Your task to perform on an android device: move an email to a new category in the gmail app Image 0: 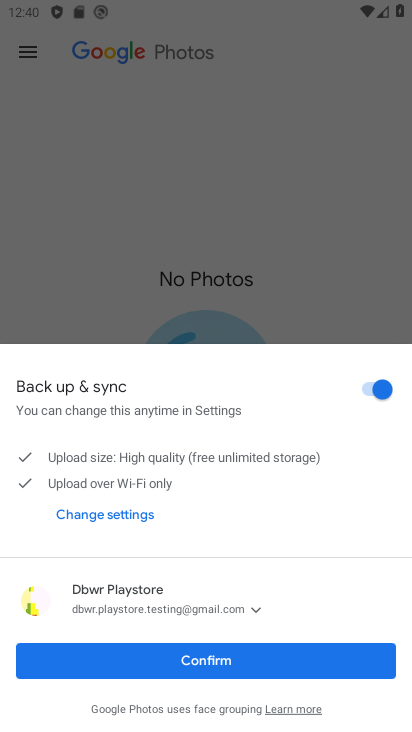
Step 0: press back button
Your task to perform on an android device: move an email to a new category in the gmail app Image 1: 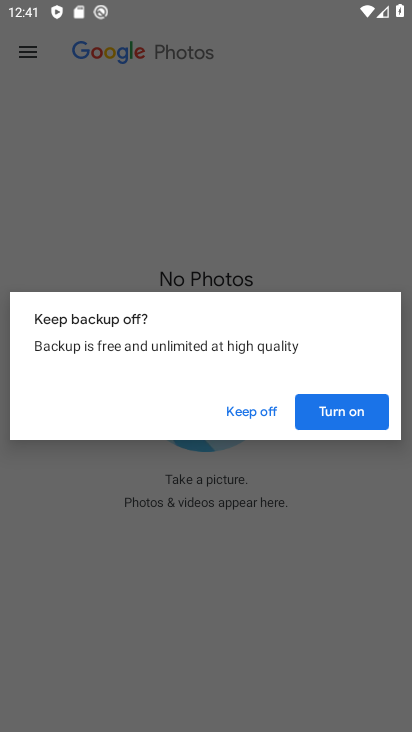
Step 1: press home button
Your task to perform on an android device: move an email to a new category in the gmail app Image 2: 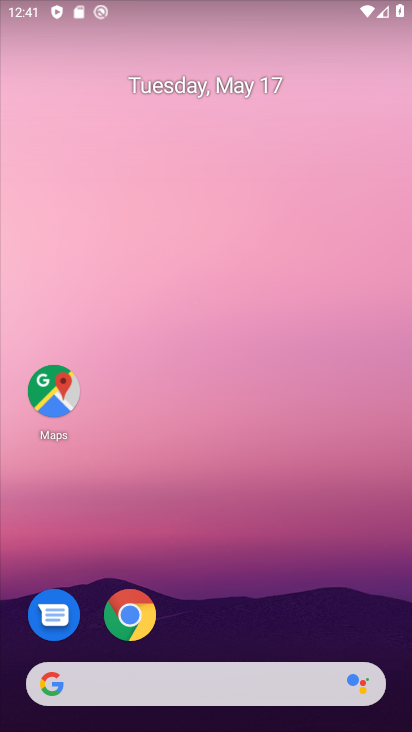
Step 2: drag from (286, 584) to (266, 232)
Your task to perform on an android device: move an email to a new category in the gmail app Image 3: 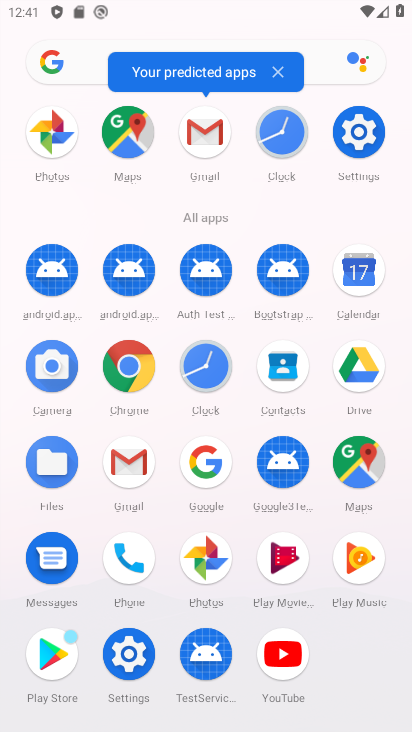
Step 3: click (207, 131)
Your task to perform on an android device: move an email to a new category in the gmail app Image 4: 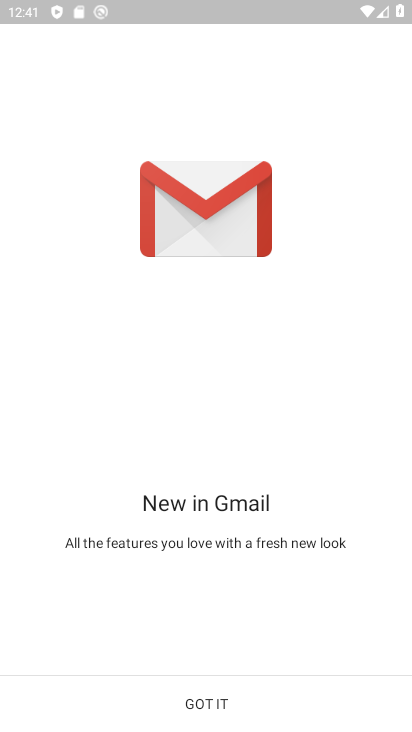
Step 4: click (196, 701)
Your task to perform on an android device: move an email to a new category in the gmail app Image 5: 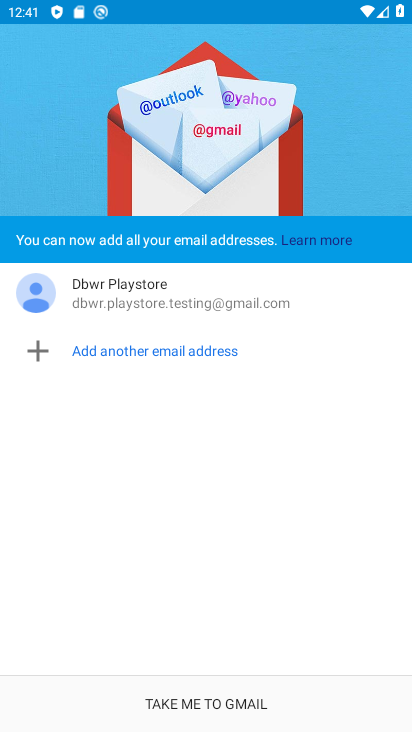
Step 5: click (196, 701)
Your task to perform on an android device: move an email to a new category in the gmail app Image 6: 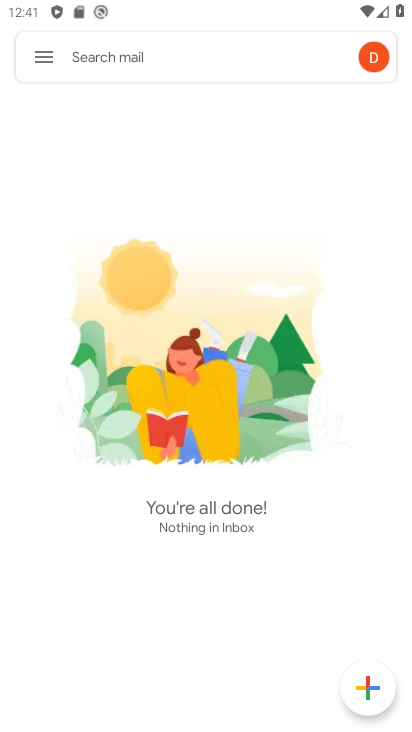
Step 6: click (50, 63)
Your task to perform on an android device: move an email to a new category in the gmail app Image 7: 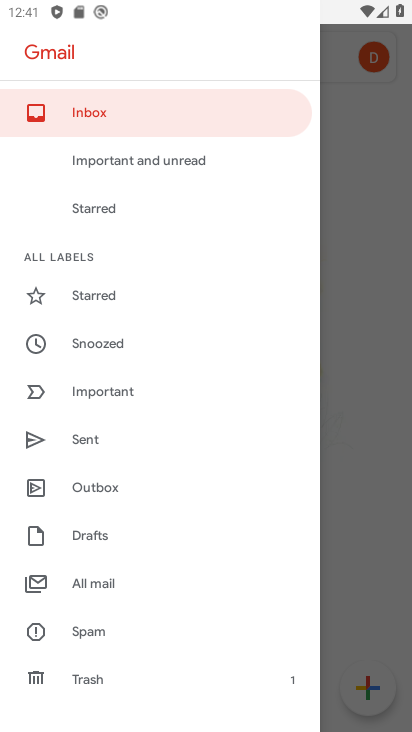
Step 7: click (140, 118)
Your task to perform on an android device: move an email to a new category in the gmail app Image 8: 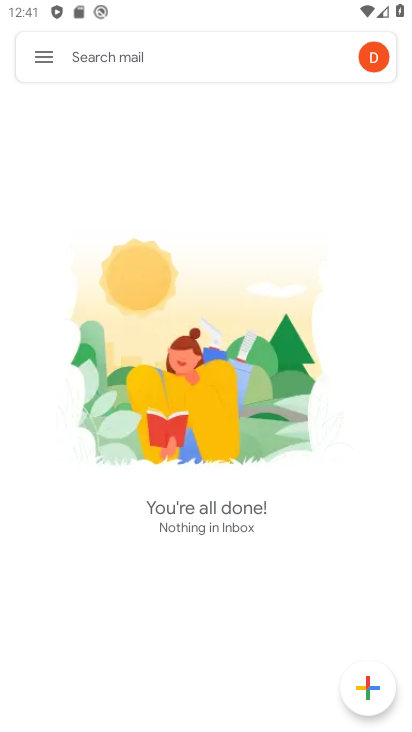
Step 8: click (51, 55)
Your task to perform on an android device: move an email to a new category in the gmail app Image 9: 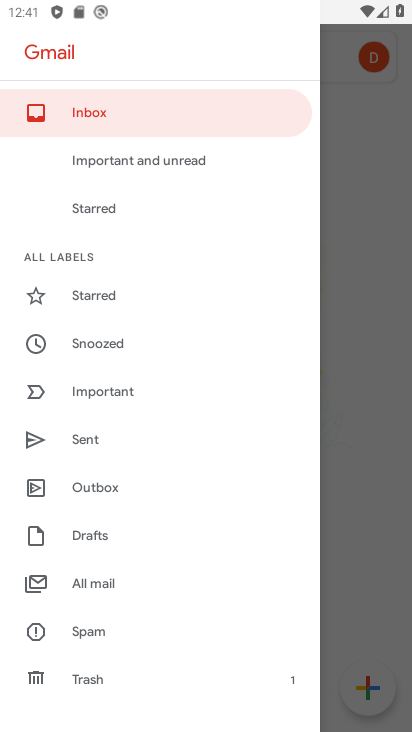
Step 9: click (91, 578)
Your task to perform on an android device: move an email to a new category in the gmail app Image 10: 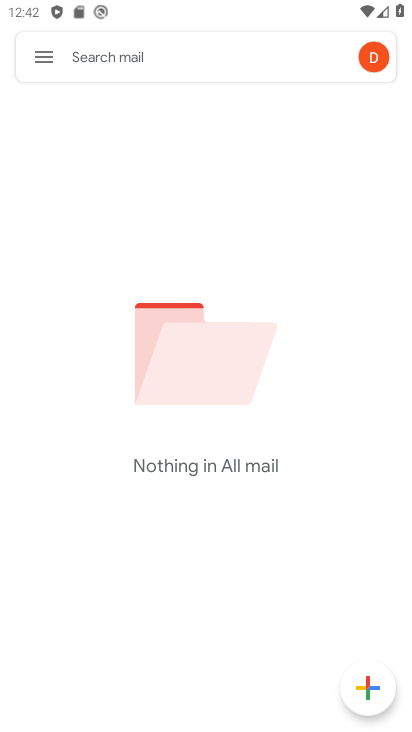
Step 10: task complete